Your task to perform on an android device: turn off location Image 0: 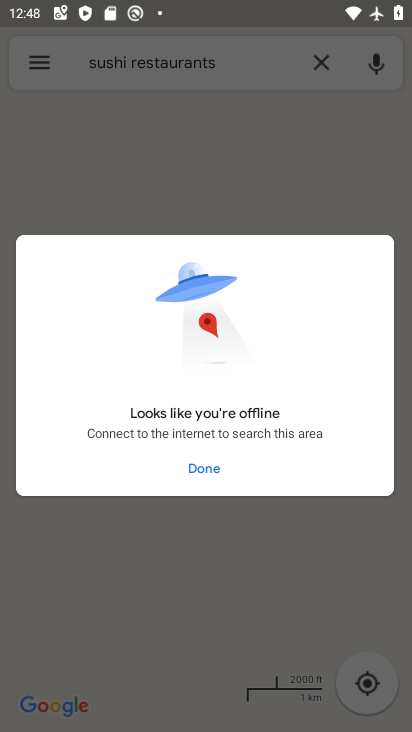
Step 0: press home button
Your task to perform on an android device: turn off location Image 1: 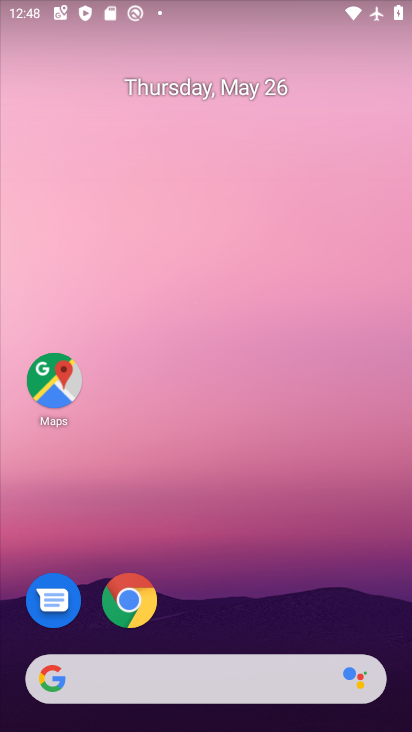
Step 1: drag from (218, 558) to (220, 93)
Your task to perform on an android device: turn off location Image 2: 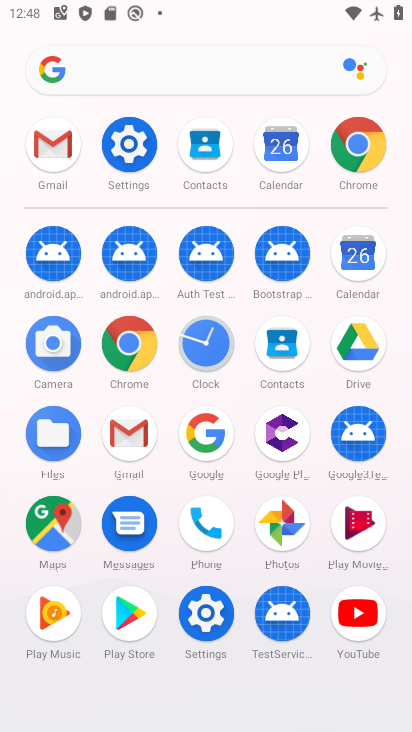
Step 2: click (138, 133)
Your task to perform on an android device: turn off location Image 3: 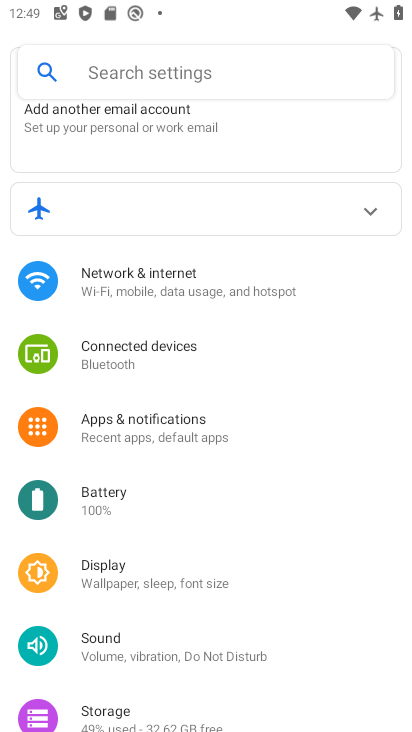
Step 3: drag from (195, 603) to (258, 124)
Your task to perform on an android device: turn off location Image 4: 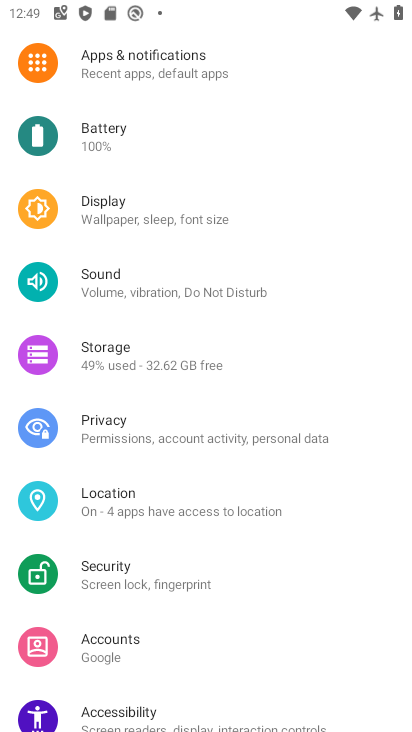
Step 4: click (150, 497)
Your task to perform on an android device: turn off location Image 5: 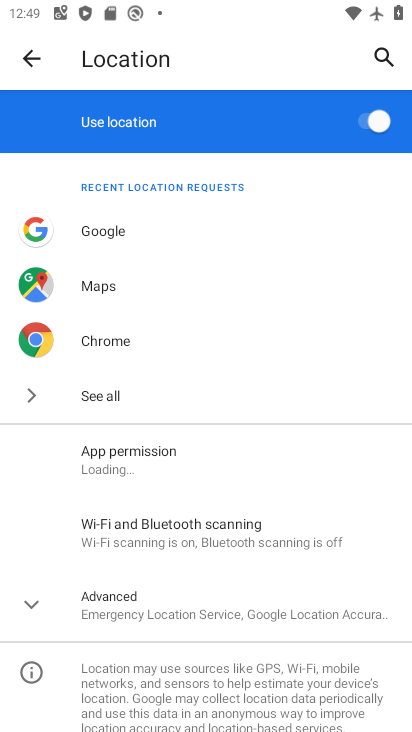
Step 5: click (360, 104)
Your task to perform on an android device: turn off location Image 6: 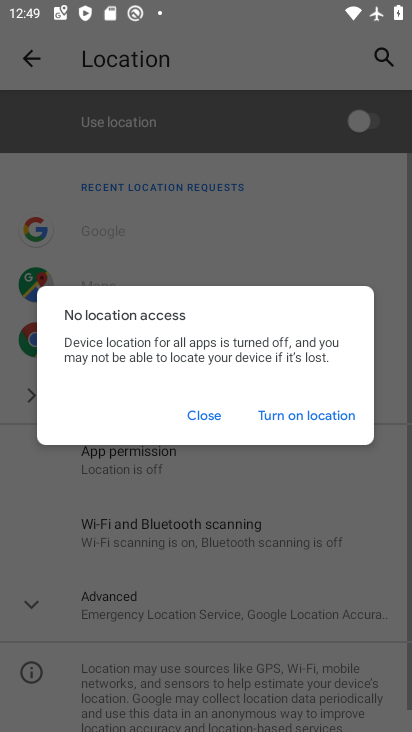
Step 6: task complete